Your task to perform on an android device: Open Amazon Image 0: 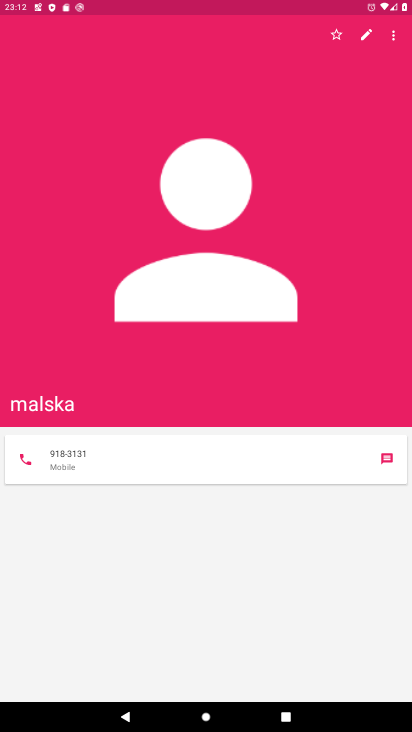
Step 0: press home button
Your task to perform on an android device: Open Amazon Image 1: 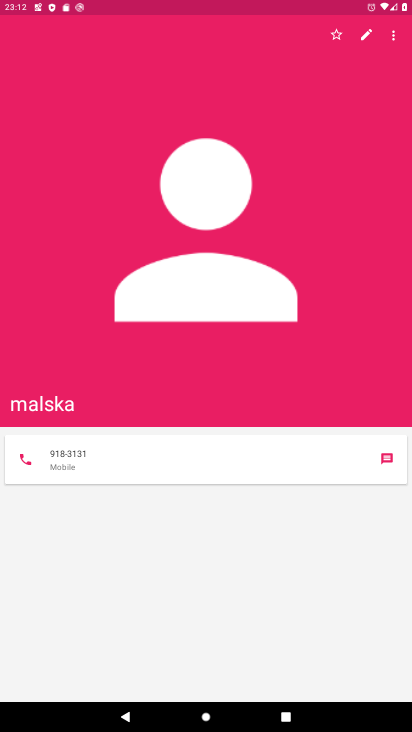
Step 1: press home button
Your task to perform on an android device: Open Amazon Image 2: 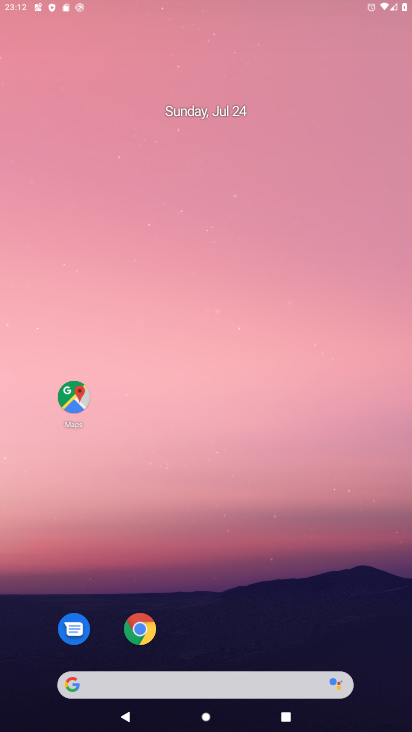
Step 2: drag from (175, 655) to (283, 5)
Your task to perform on an android device: Open Amazon Image 3: 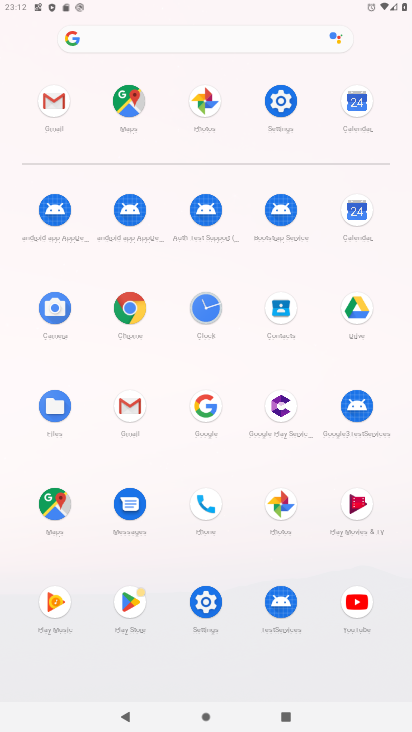
Step 3: click (129, 299)
Your task to perform on an android device: Open Amazon Image 4: 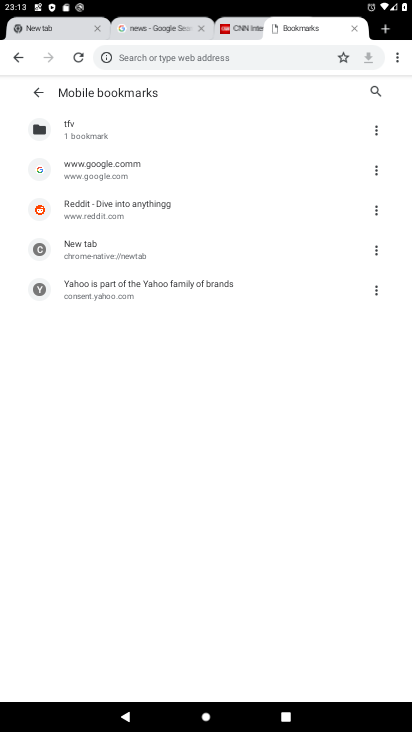
Step 4: click (352, 30)
Your task to perform on an android device: Open Amazon Image 5: 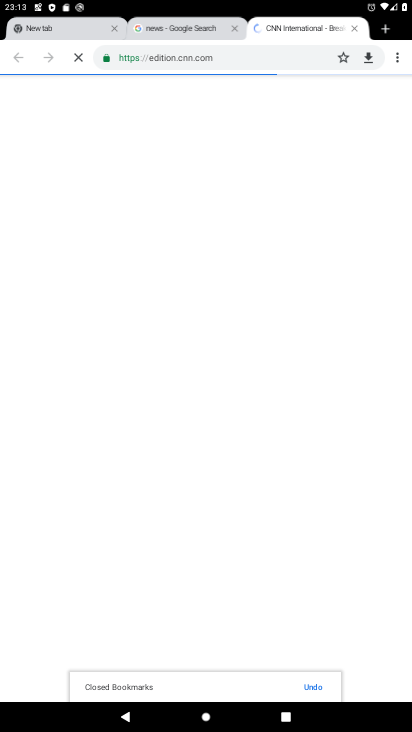
Step 5: click (253, 26)
Your task to perform on an android device: Open Amazon Image 6: 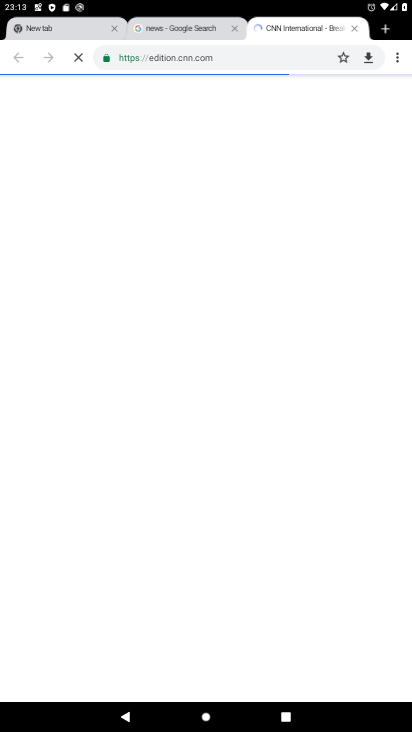
Step 6: click (353, 33)
Your task to perform on an android device: Open Amazon Image 7: 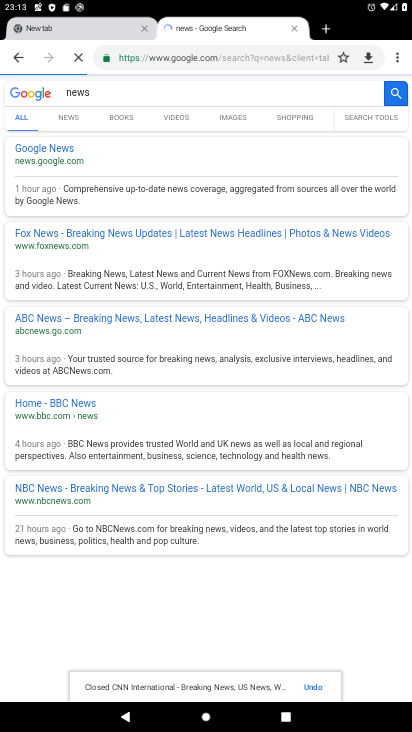
Step 7: click (174, 60)
Your task to perform on an android device: Open Amazon Image 8: 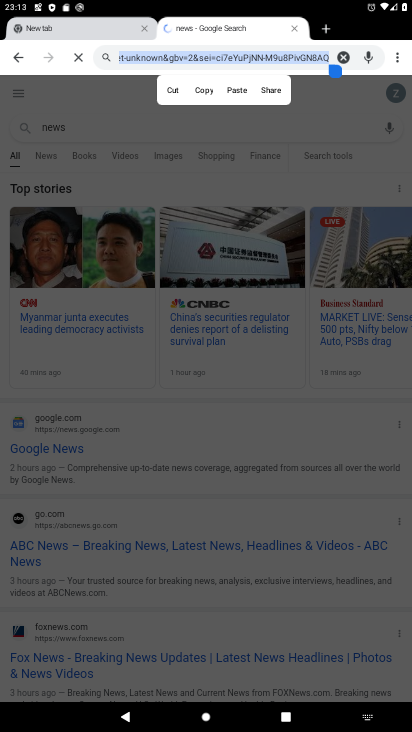
Step 8: click (341, 55)
Your task to perform on an android device: Open Amazon Image 9: 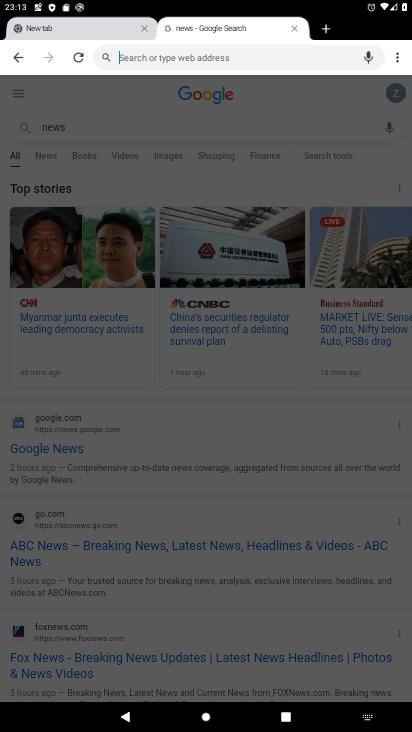
Step 9: type "amazon"
Your task to perform on an android device: Open Amazon Image 10: 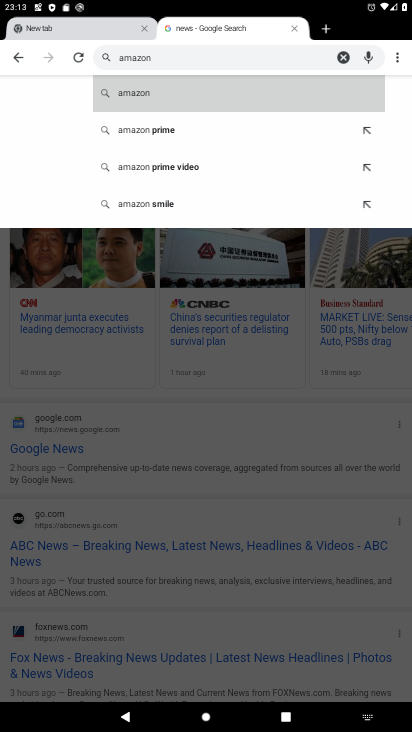
Step 10: click (123, 94)
Your task to perform on an android device: Open Amazon Image 11: 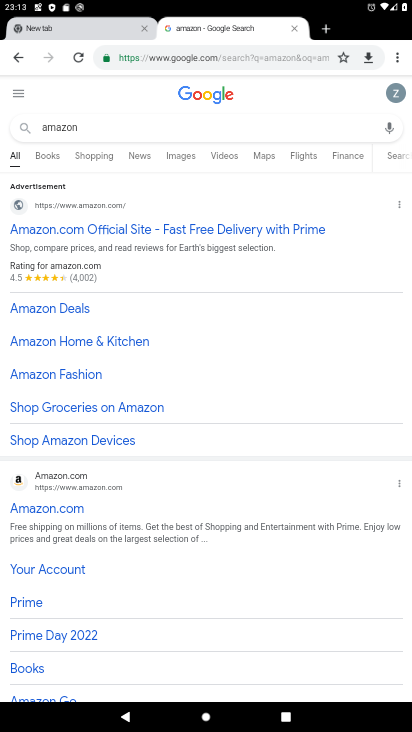
Step 11: click (36, 226)
Your task to perform on an android device: Open Amazon Image 12: 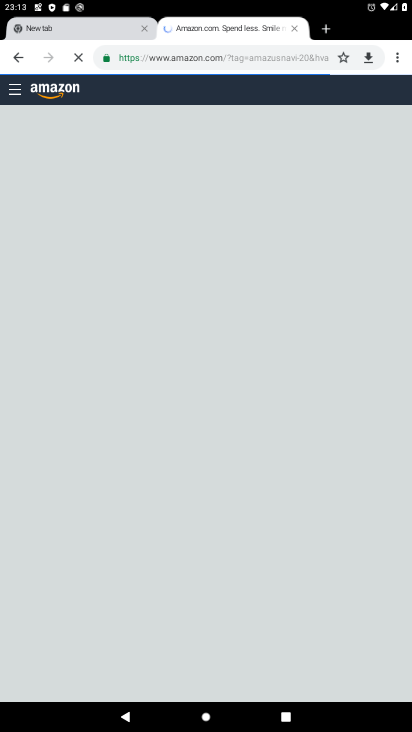
Step 12: task complete